Your task to perform on an android device: Go to Amazon Image 0: 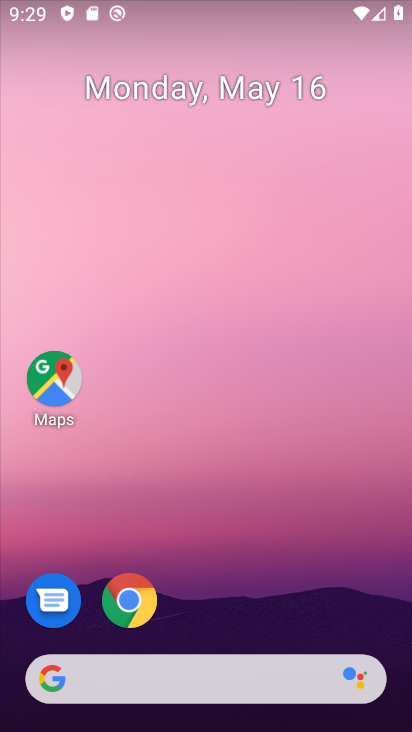
Step 0: click (126, 598)
Your task to perform on an android device: Go to Amazon Image 1: 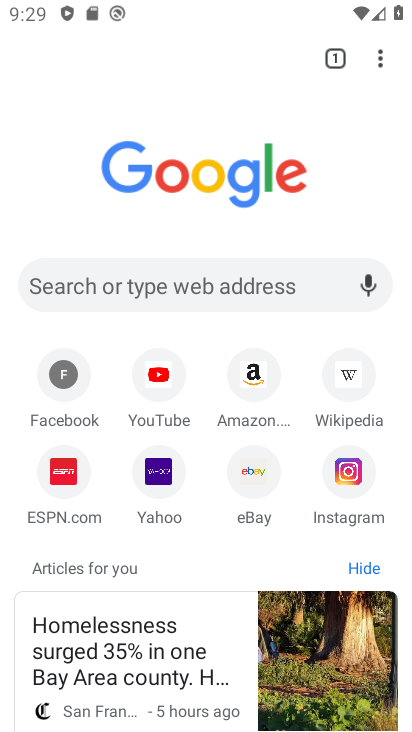
Step 1: click (258, 389)
Your task to perform on an android device: Go to Amazon Image 2: 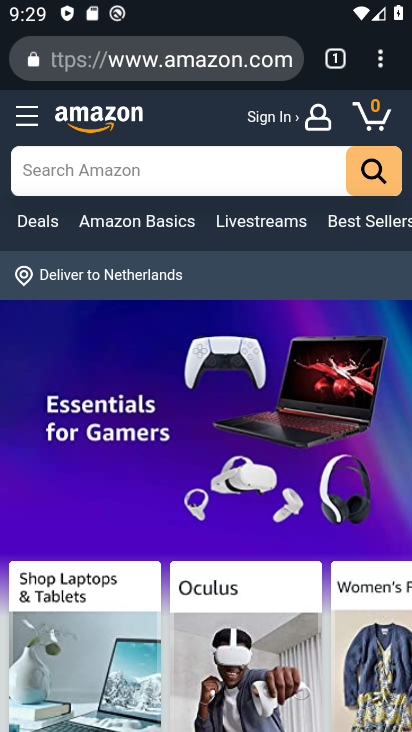
Step 2: task complete